Your task to perform on an android device: Open accessibility settings Image 0: 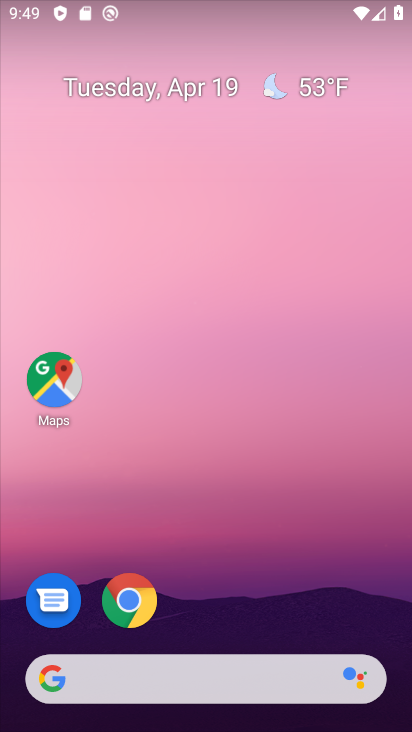
Step 0: drag from (196, 602) to (291, 30)
Your task to perform on an android device: Open accessibility settings Image 1: 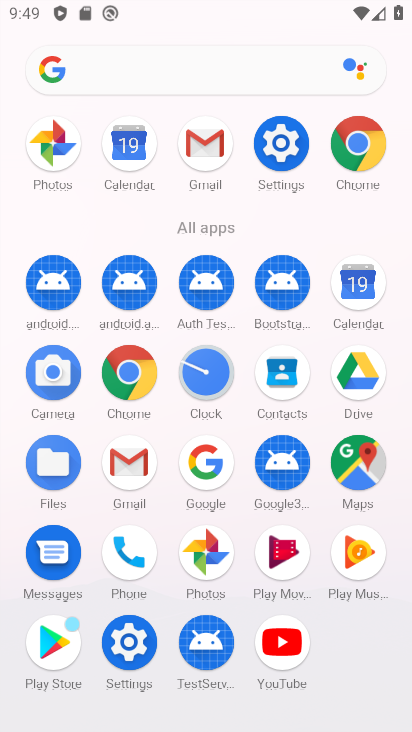
Step 1: click (118, 642)
Your task to perform on an android device: Open accessibility settings Image 2: 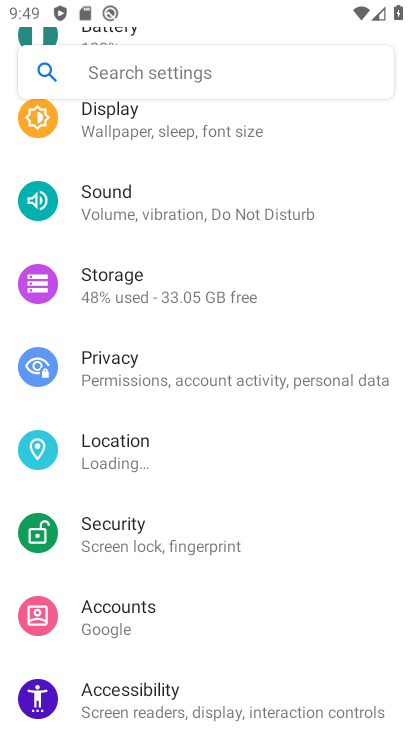
Step 2: drag from (250, 653) to (381, 88)
Your task to perform on an android device: Open accessibility settings Image 3: 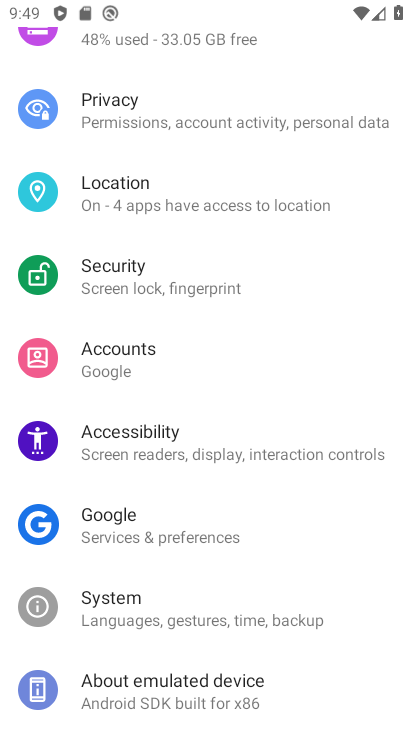
Step 3: click (201, 447)
Your task to perform on an android device: Open accessibility settings Image 4: 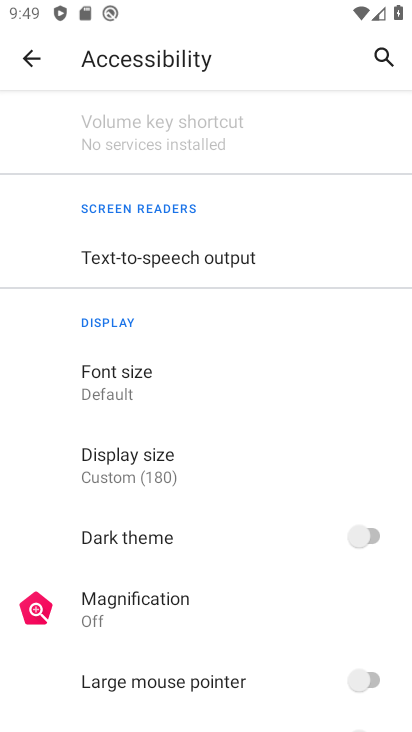
Step 4: task complete